Your task to perform on an android device: Open the phone app and click the voicemail tab. Image 0: 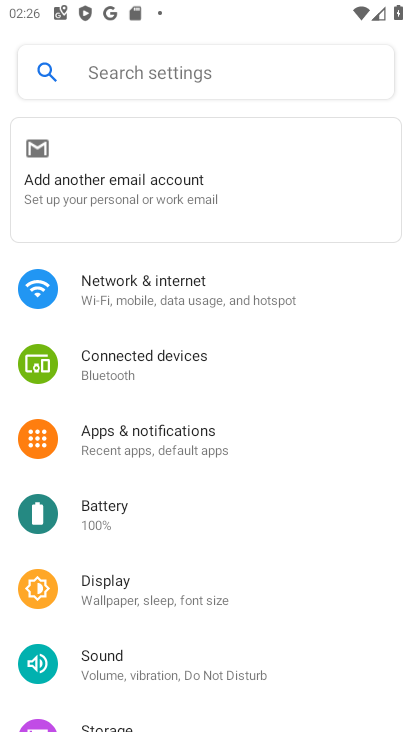
Step 0: press home button
Your task to perform on an android device: Open the phone app and click the voicemail tab. Image 1: 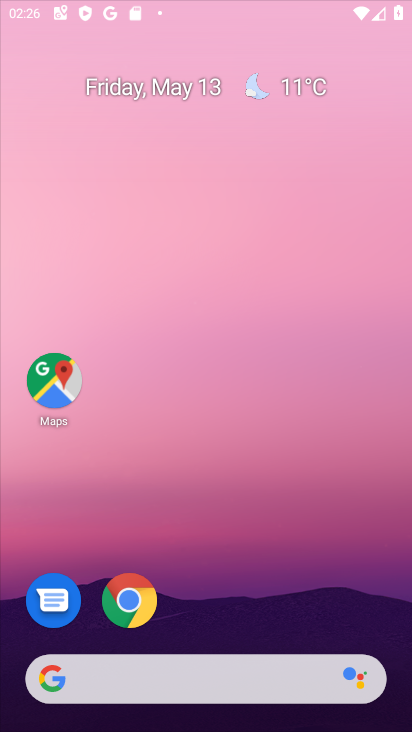
Step 1: drag from (148, 667) to (226, 128)
Your task to perform on an android device: Open the phone app and click the voicemail tab. Image 2: 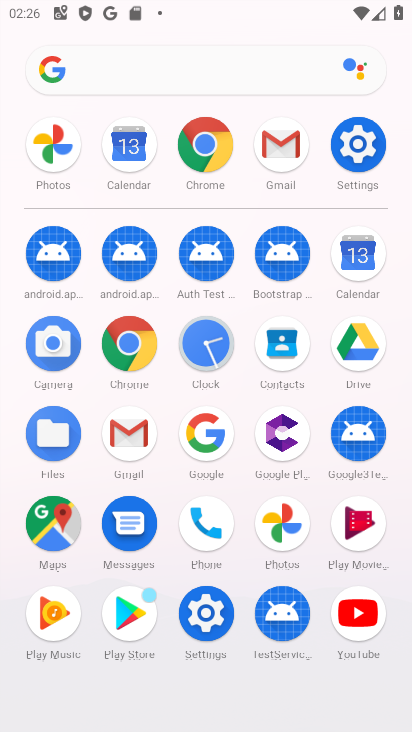
Step 2: click (224, 520)
Your task to perform on an android device: Open the phone app and click the voicemail tab. Image 3: 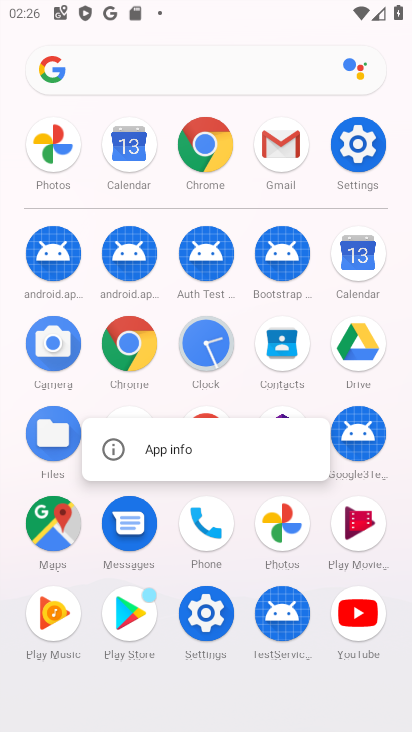
Step 3: click (158, 455)
Your task to perform on an android device: Open the phone app and click the voicemail tab. Image 4: 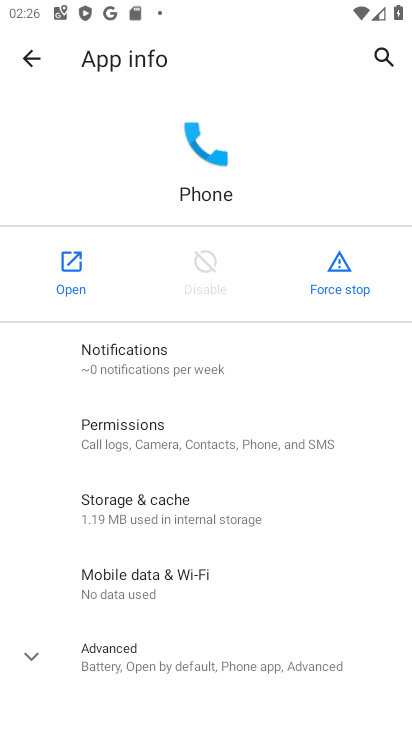
Step 4: click (71, 261)
Your task to perform on an android device: Open the phone app and click the voicemail tab. Image 5: 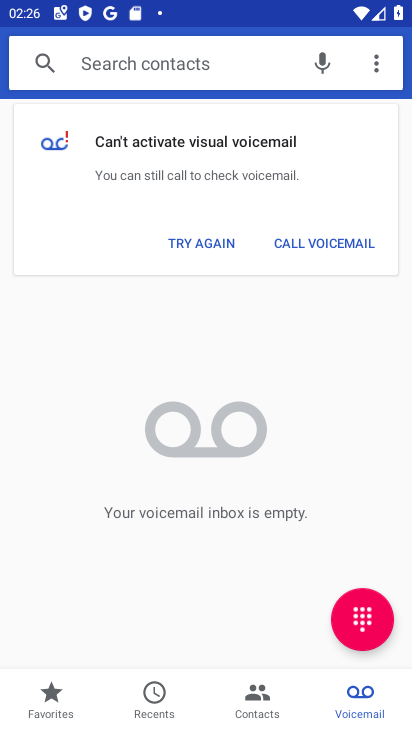
Step 5: click (360, 708)
Your task to perform on an android device: Open the phone app and click the voicemail tab. Image 6: 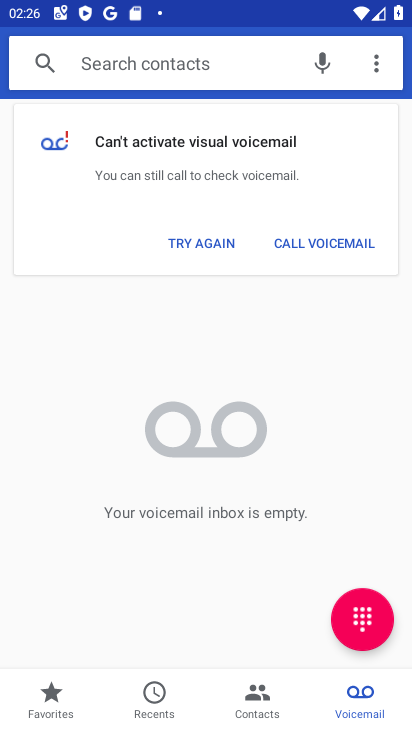
Step 6: task complete